Your task to perform on an android device: Play the last video I watched on Youtube Image 0: 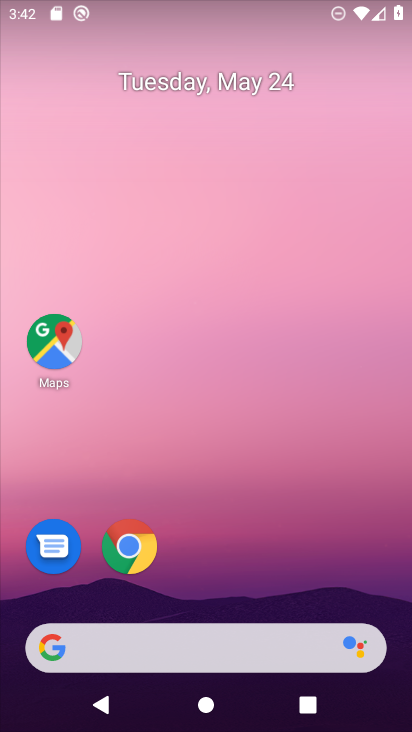
Step 0: drag from (254, 427) to (202, 71)
Your task to perform on an android device: Play the last video I watched on Youtube Image 1: 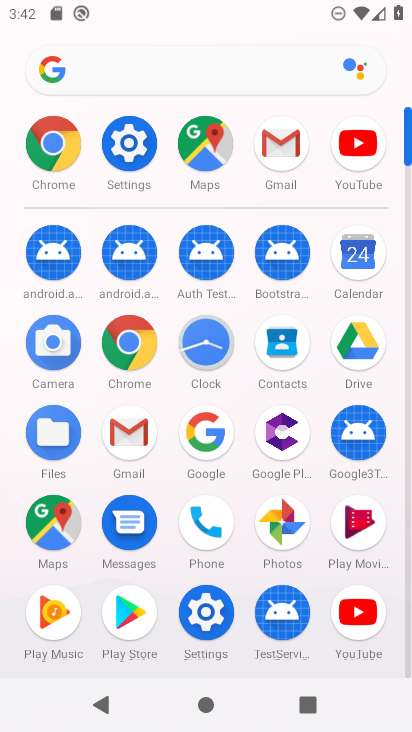
Step 1: click (366, 612)
Your task to perform on an android device: Play the last video I watched on Youtube Image 2: 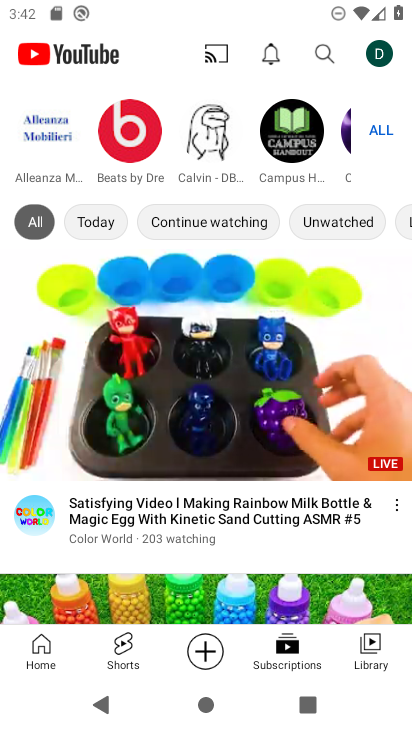
Step 2: click (368, 647)
Your task to perform on an android device: Play the last video I watched on Youtube Image 3: 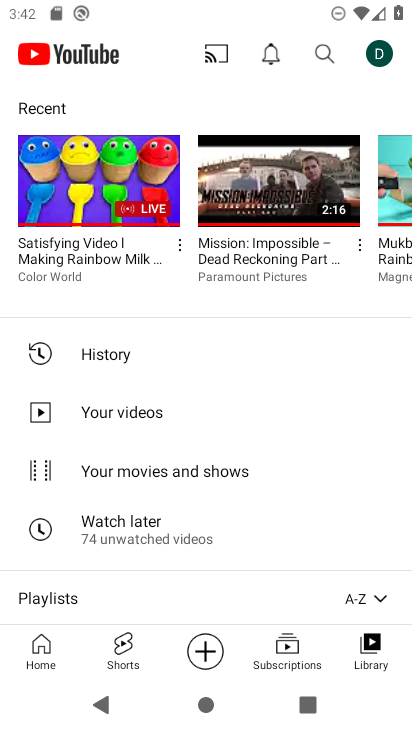
Step 3: click (90, 189)
Your task to perform on an android device: Play the last video I watched on Youtube Image 4: 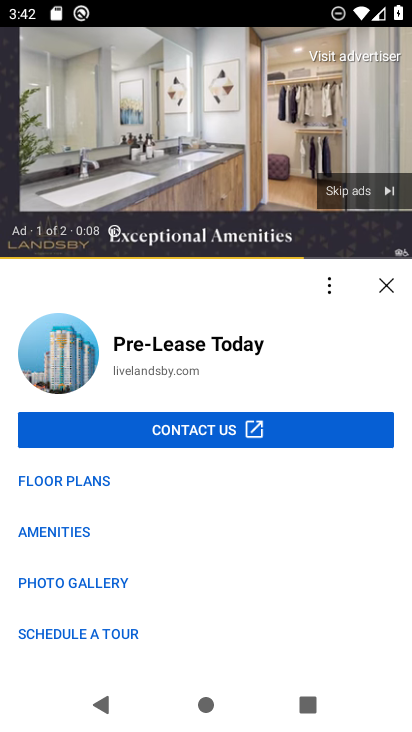
Step 4: click (391, 186)
Your task to perform on an android device: Play the last video I watched on Youtube Image 5: 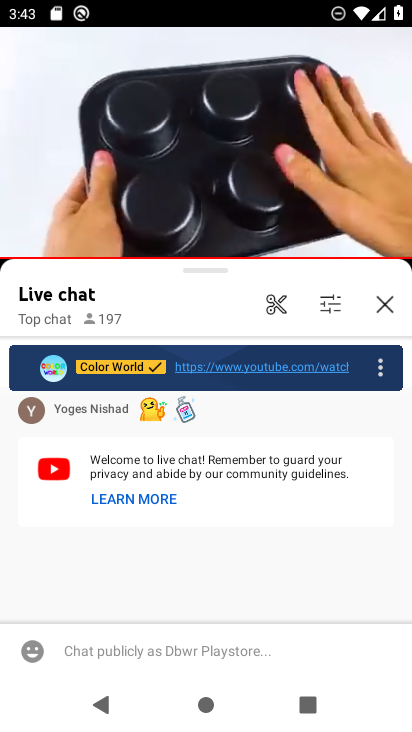
Step 5: click (206, 113)
Your task to perform on an android device: Play the last video I watched on Youtube Image 6: 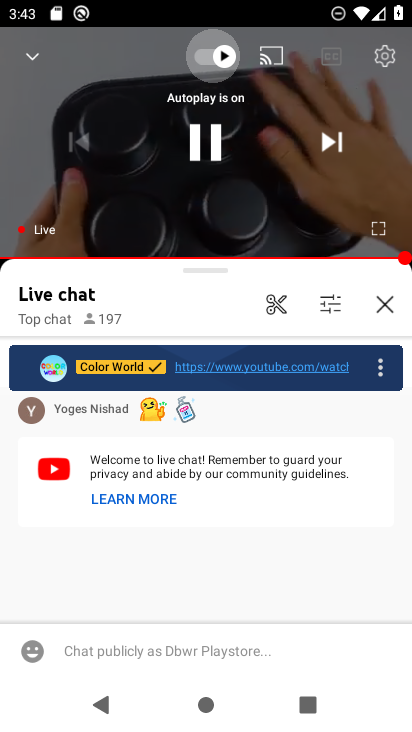
Step 6: click (206, 113)
Your task to perform on an android device: Play the last video I watched on Youtube Image 7: 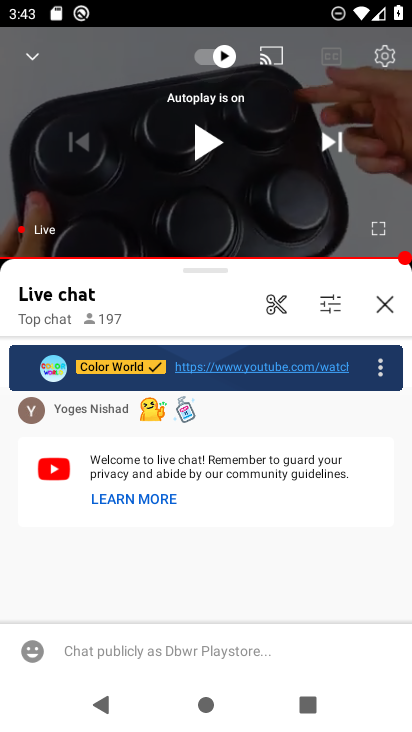
Step 7: click (209, 152)
Your task to perform on an android device: Play the last video I watched on Youtube Image 8: 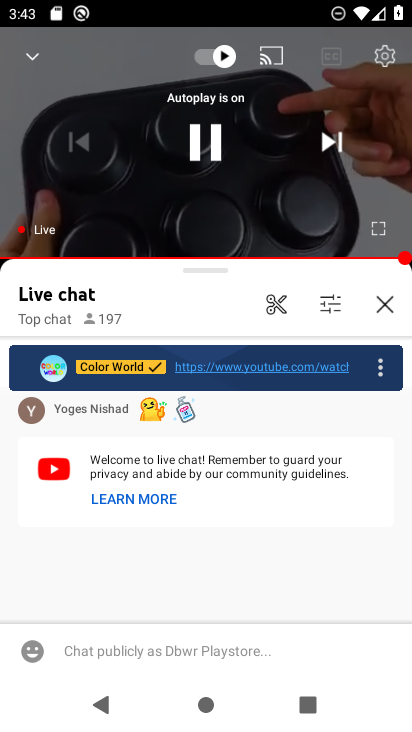
Step 8: click (209, 152)
Your task to perform on an android device: Play the last video I watched on Youtube Image 9: 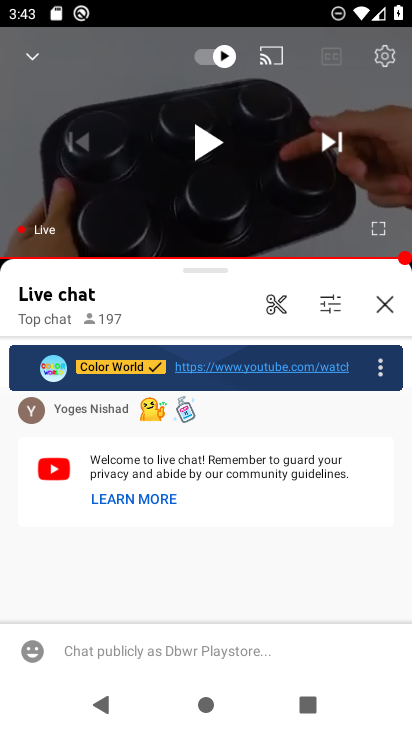
Step 9: task complete